Your task to perform on an android device: Go to notification settings Image 0: 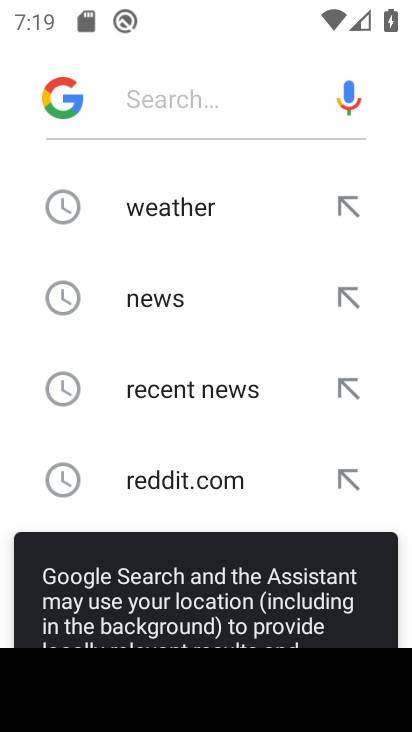
Step 0: press home button
Your task to perform on an android device: Go to notification settings Image 1: 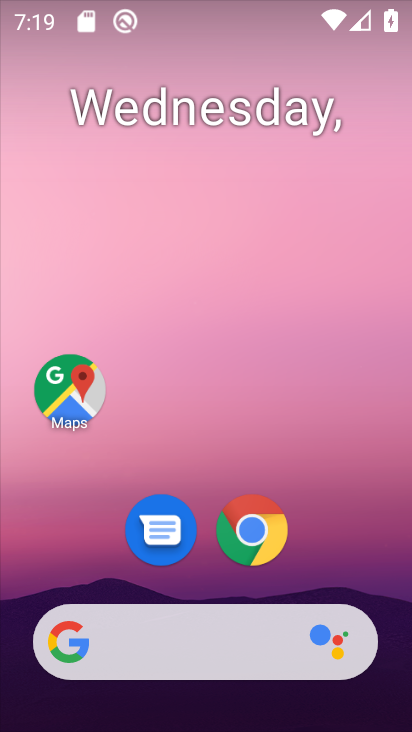
Step 1: drag from (359, 579) to (334, 110)
Your task to perform on an android device: Go to notification settings Image 2: 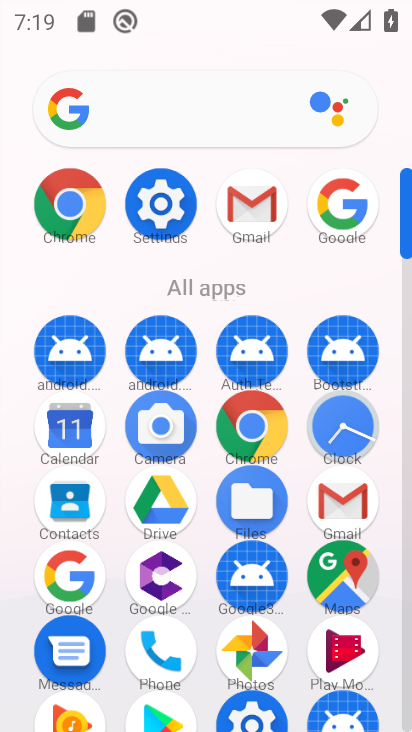
Step 2: click (166, 221)
Your task to perform on an android device: Go to notification settings Image 3: 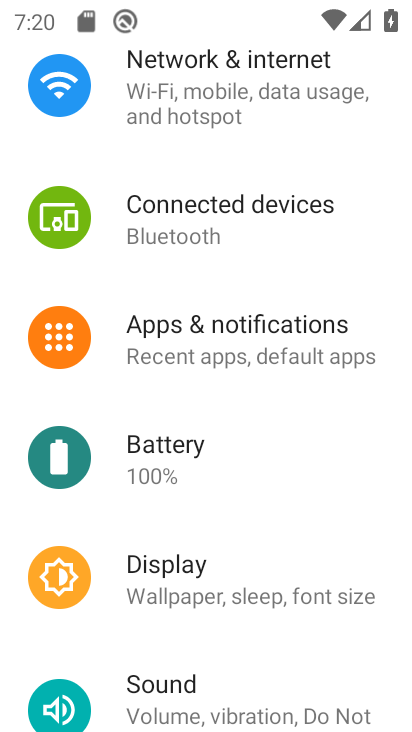
Step 3: click (254, 334)
Your task to perform on an android device: Go to notification settings Image 4: 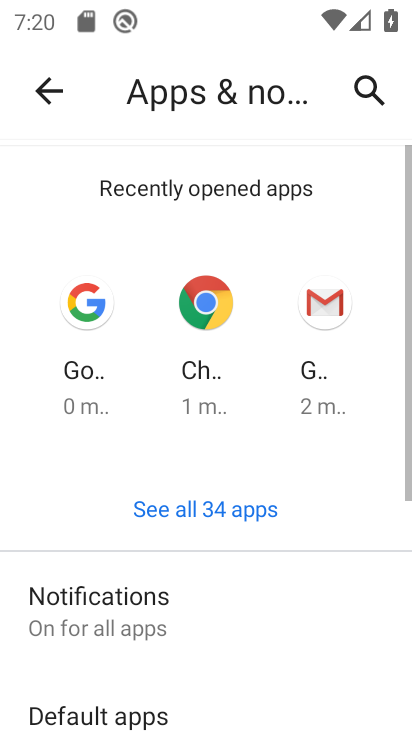
Step 4: click (201, 609)
Your task to perform on an android device: Go to notification settings Image 5: 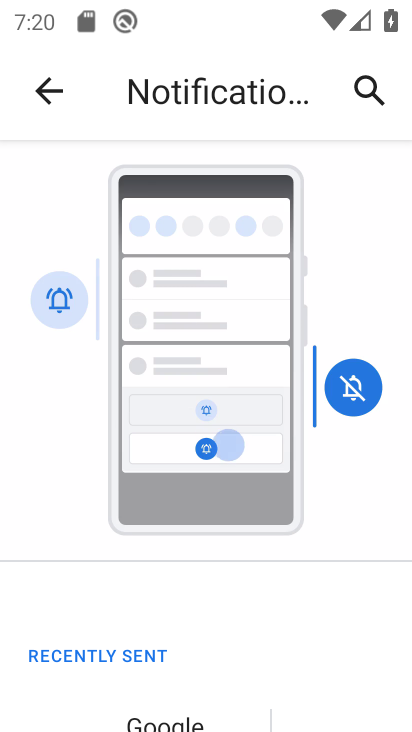
Step 5: task complete